Your task to perform on an android device: Add "macbook pro 13 inch" to the cart on amazon Image 0: 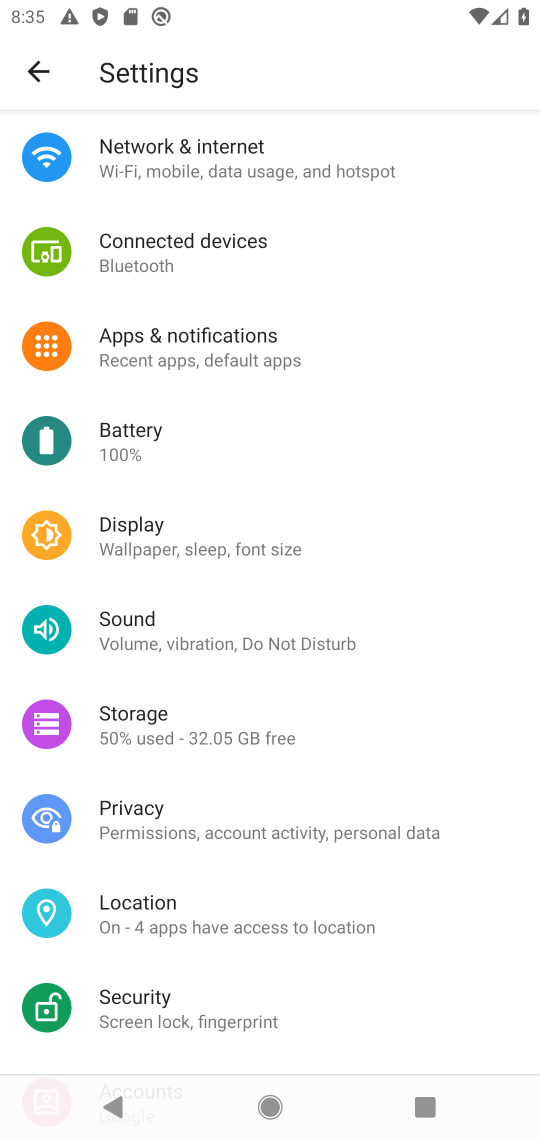
Step 0: press home button
Your task to perform on an android device: Add "macbook pro 13 inch" to the cart on amazon Image 1: 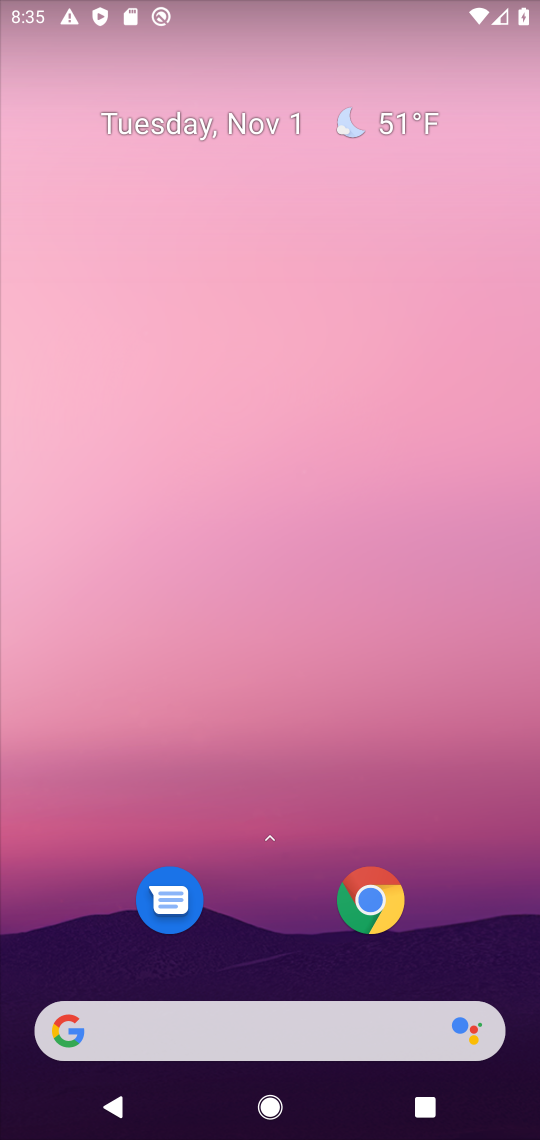
Step 1: drag from (349, 1095) to (439, 2)
Your task to perform on an android device: Add "macbook pro 13 inch" to the cart on amazon Image 2: 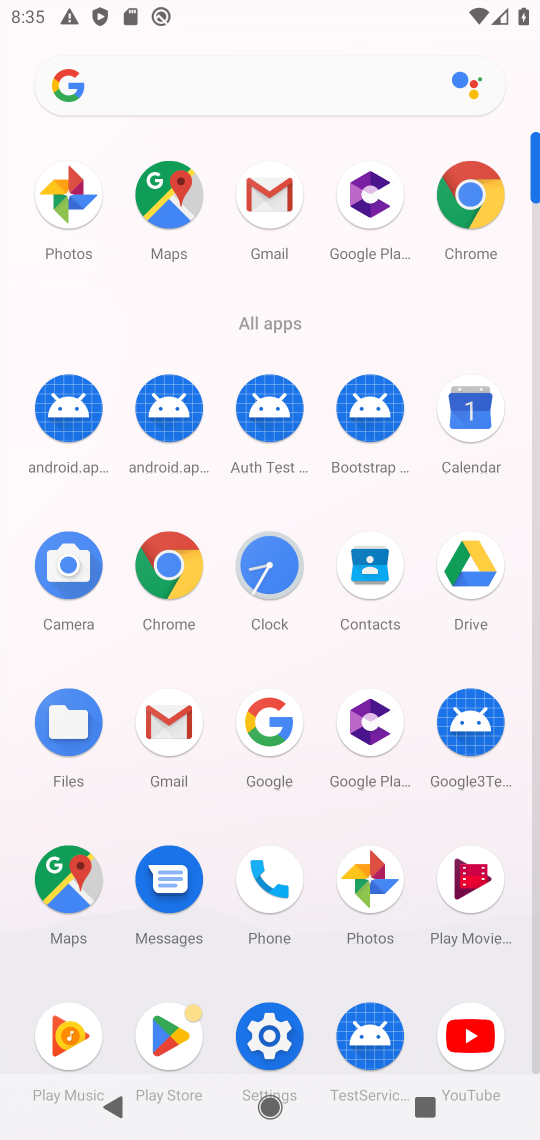
Step 2: click (161, 575)
Your task to perform on an android device: Add "macbook pro 13 inch" to the cart on amazon Image 3: 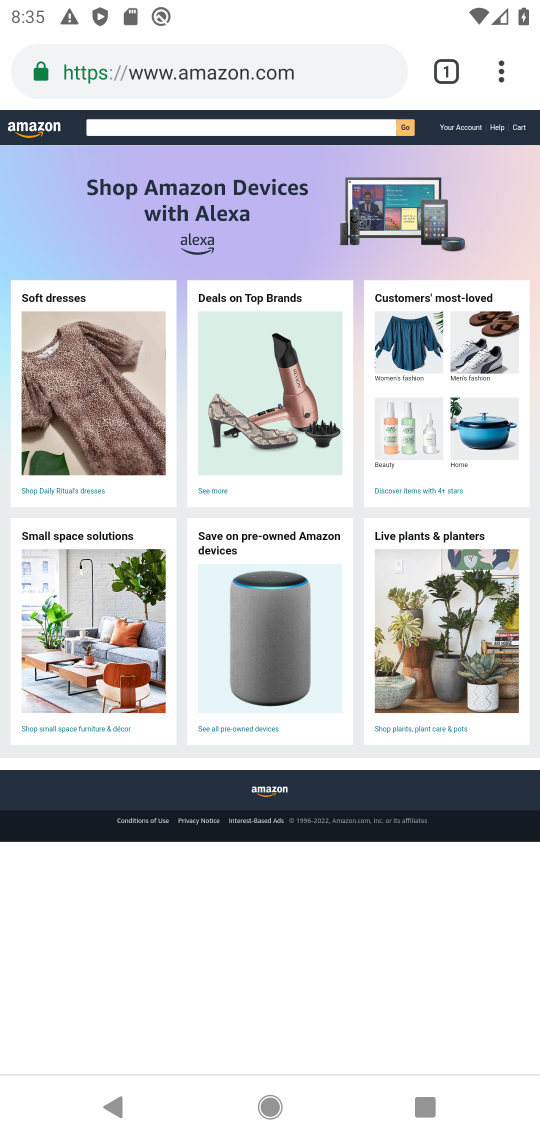
Step 3: click (316, 66)
Your task to perform on an android device: Add "macbook pro 13 inch" to the cart on amazon Image 4: 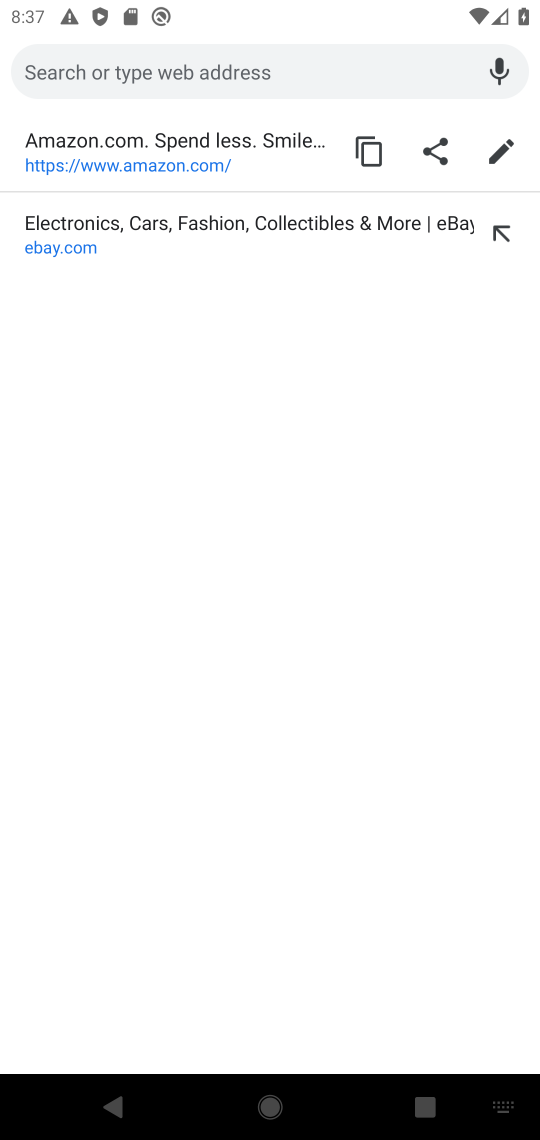
Step 4: type "amazon"
Your task to perform on an android device: Add "macbook pro 13 inch" to the cart on amazon Image 5: 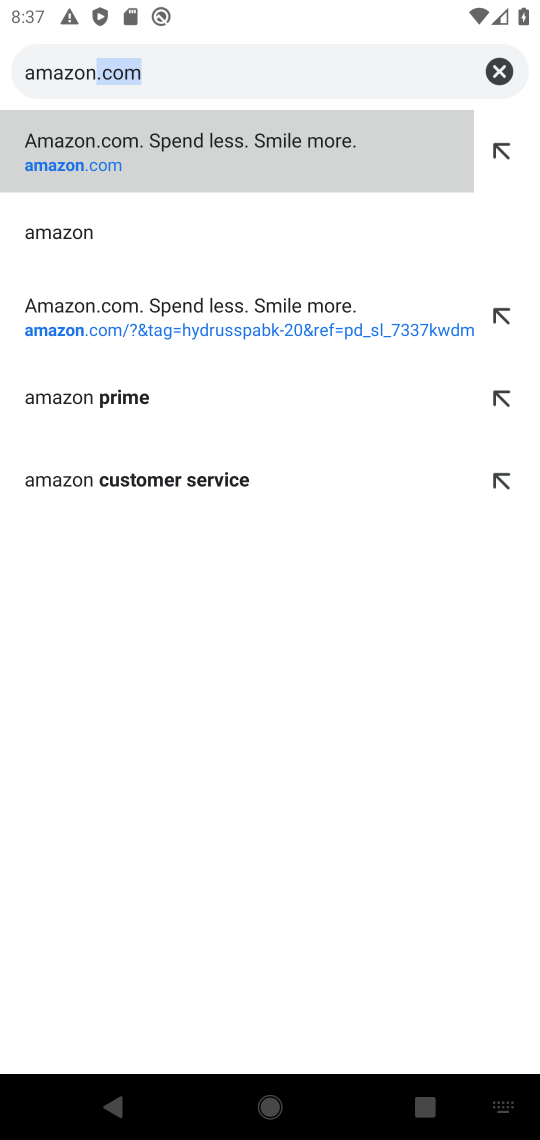
Step 5: click (50, 166)
Your task to perform on an android device: Add "macbook pro 13 inch" to the cart on amazon Image 6: 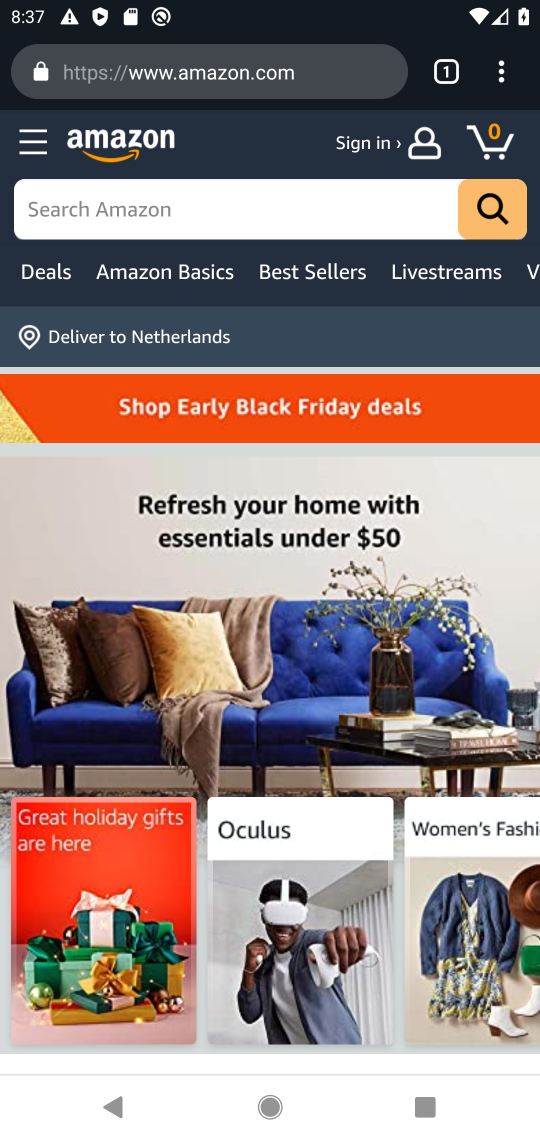
Step 6: click (125, 197)
Your task to perform on an android device: Add "macbook pro 13 inch" to the cart on amazon Image 7: 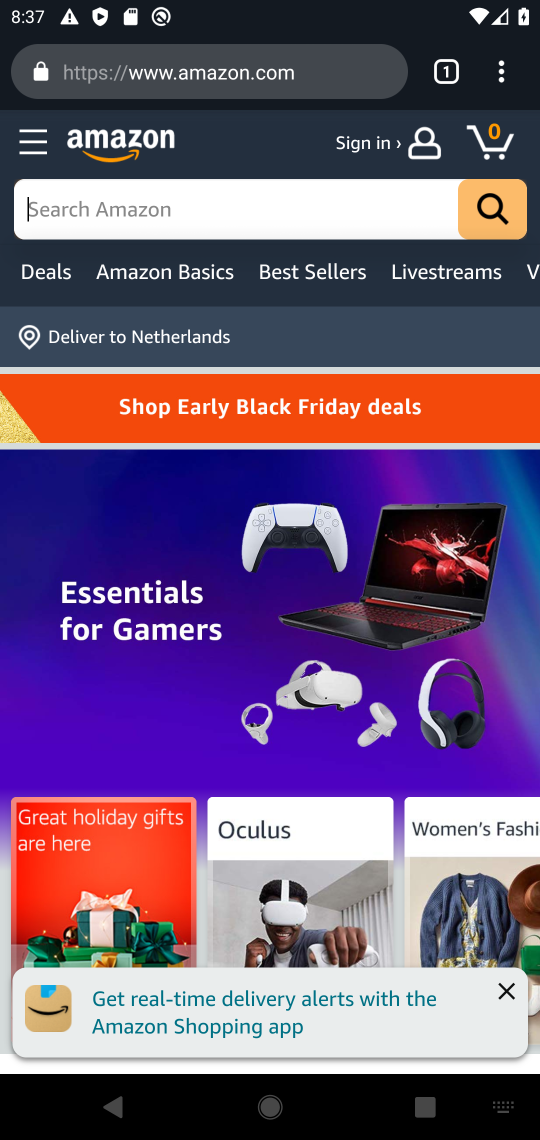
Step 7: type "macbook pro 13 inch"
Your task to perform on an android device: Add "macbook pro 13 inch" to the cart on amazon Image 8: 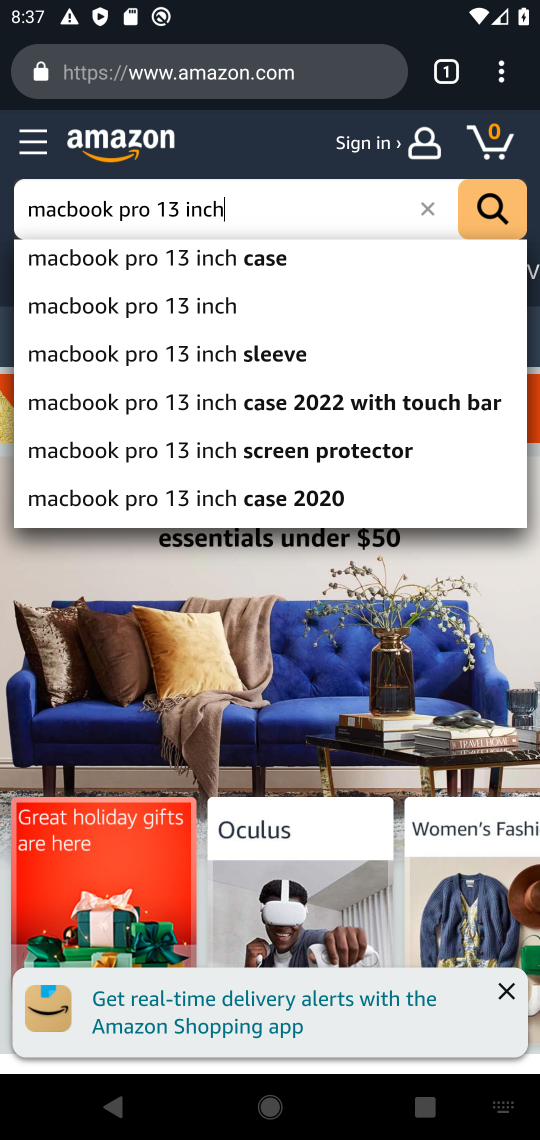
Step 8: click (161, 306)
Your task to perform on an android device: Add "macbook pro 13 inch" to the cart on amazon Image 9: 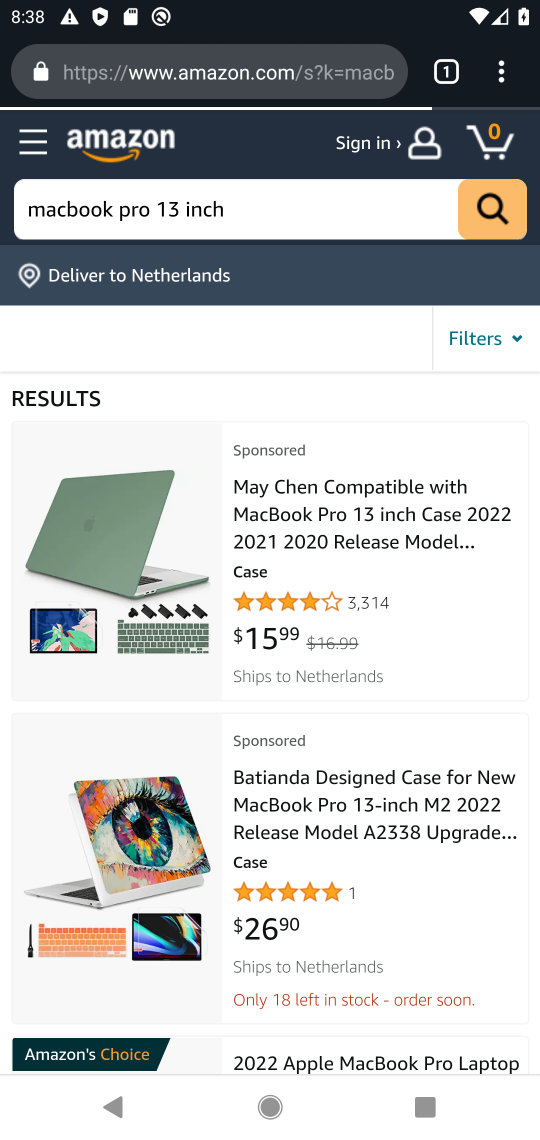
Step 9: click (202, 501)
Your task to perform on an android device: Add "macbook pro 13 inch" to the cart on amazon Image 10: 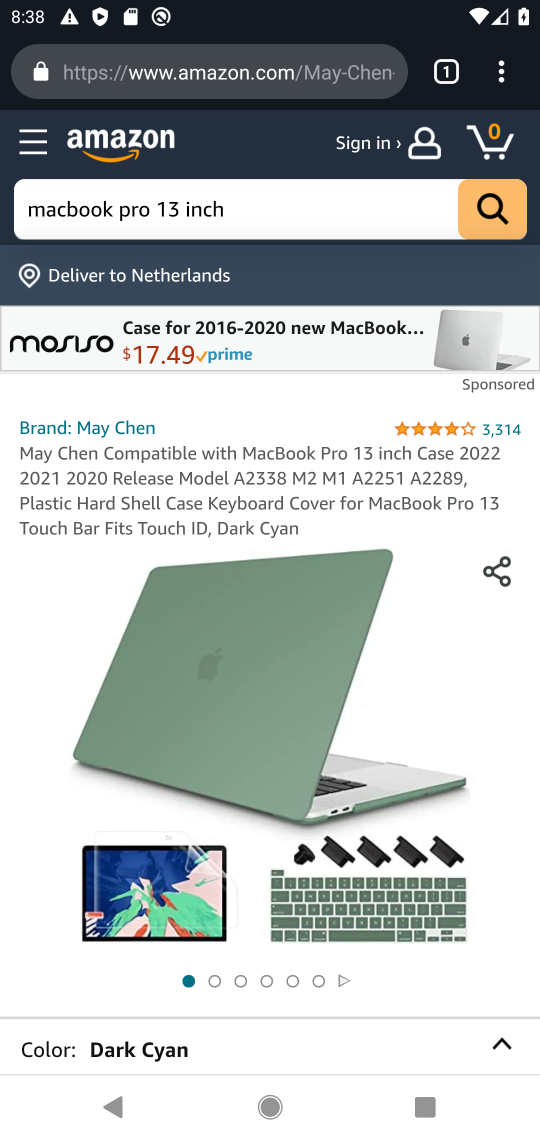
Step 10: drag from (382, 992) to (411, 383)
Your task to perform on an android device: Add "macbook pro 13 inch" to the cart on amazon Image 11: 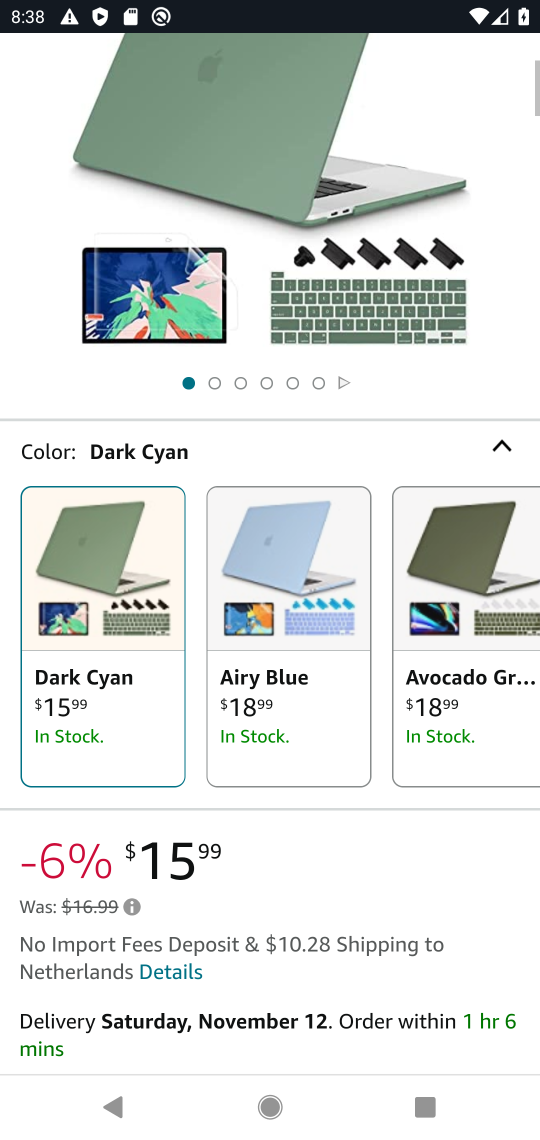
Step 11: drag from (277, 971) to (310, 366)
Your task to perform on an android device: Add "macbook pro 13 inch" to the cart on amazon Image 12: 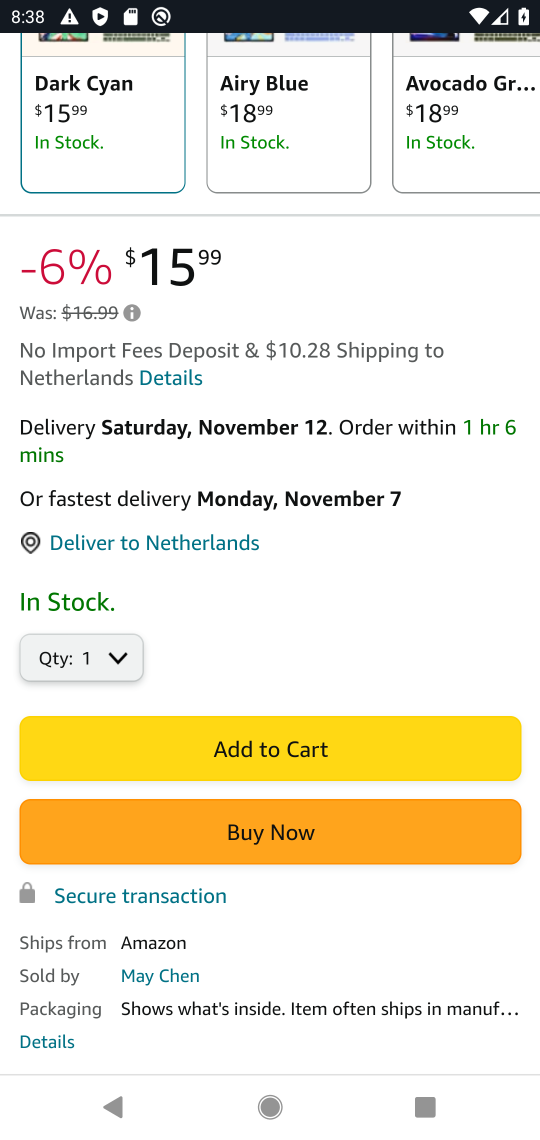
Step 12: click (279, 740)
Your task to perform on an android device: Add "macbook pro 13 inch" to the cart on amazon Image 13: 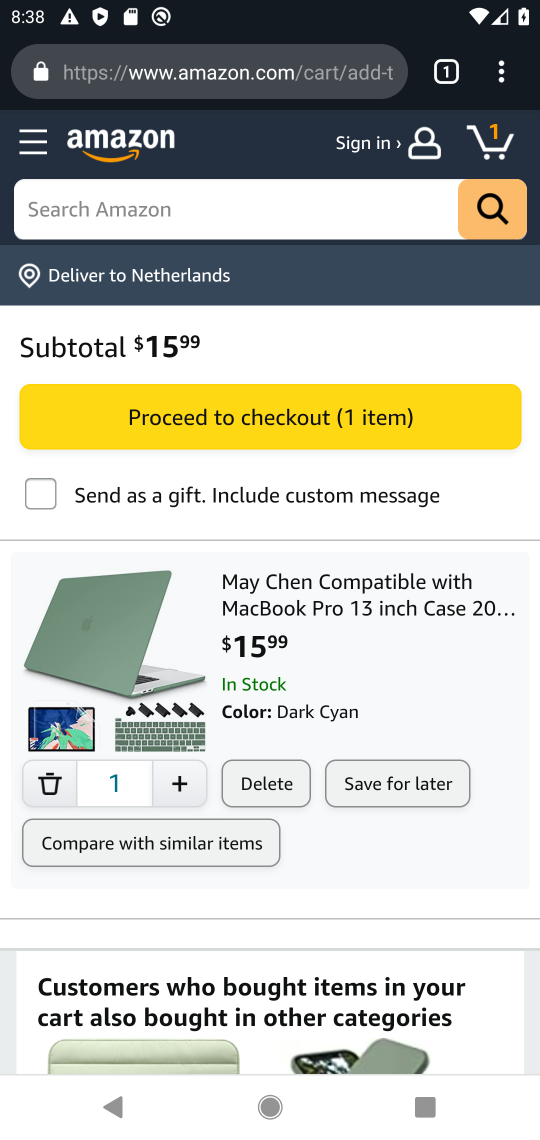
Step 13: task complete